Your task to perform on an android device: allow notifications from all sites in the chrome app Image 0: 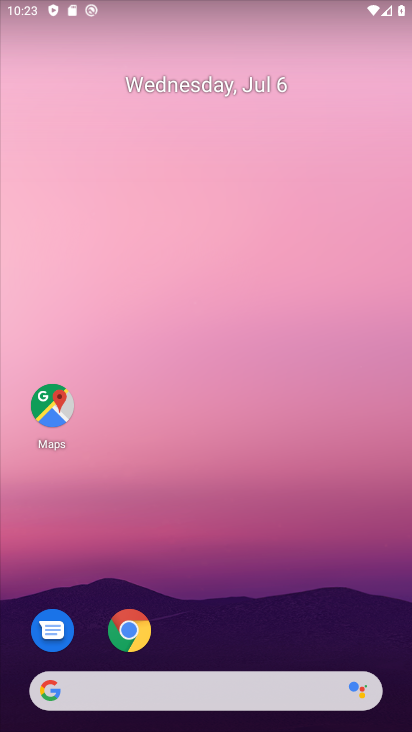
Step 0: click (129, 637)
Your task to perform on an android device: allow notifications from all sites in the chrome app Image 1: 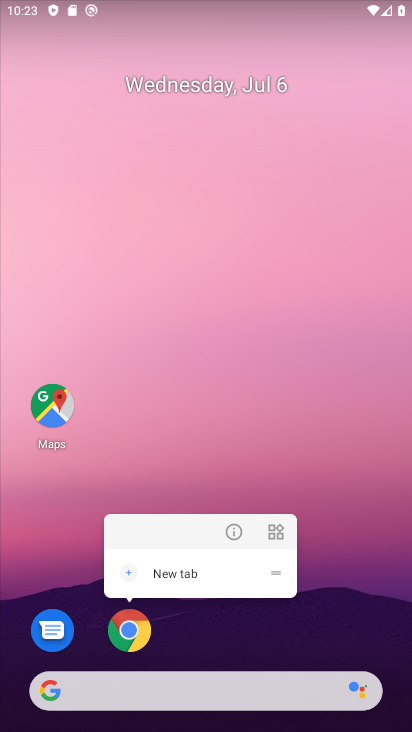
Step 1: click (124, 629)
Your task to perform on an android device: allow notifications from all sites in the chrome app Image 2: 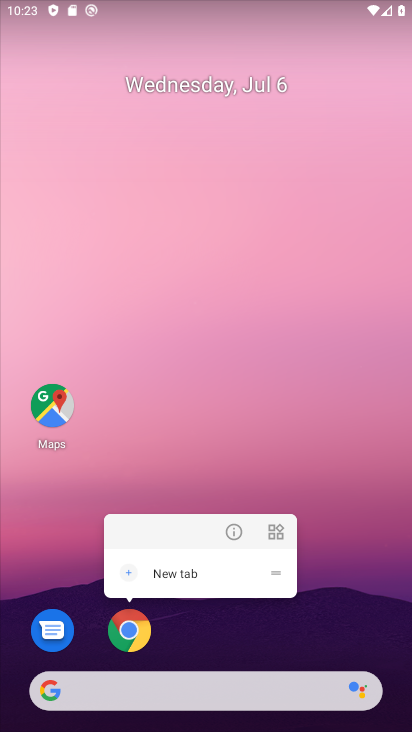
Step 2: click (129, 629)
Your task to perform on an android device: allow notifications from all sites in the chrome app Image 3: 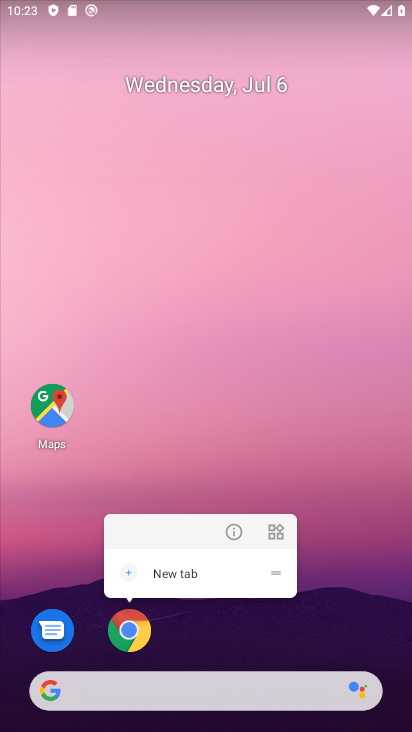
Step 3: click (133, 639)
Your task to perform on an android device: allow notifications from all sites in the chrome app Image 4: 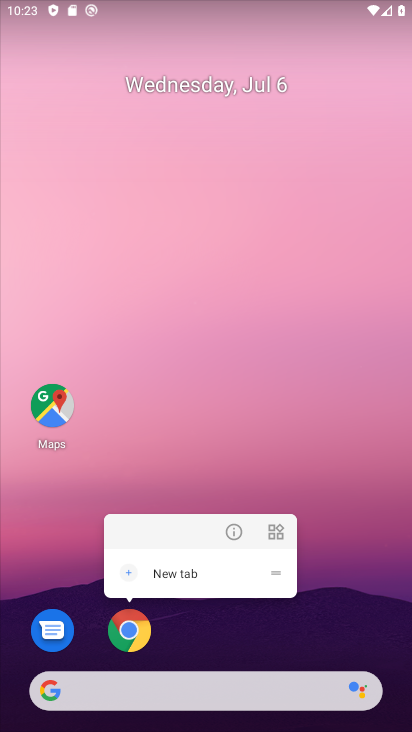
Step 4: click (126, 629)
Your task to perform on an android device: allow notifications from all sites in the chrome app Image 5: 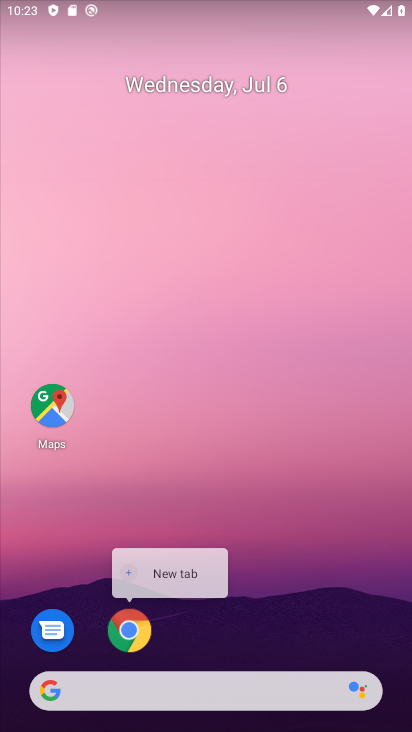
Step 5: click (126, 629)
Your task to perform on an android device: allow notifications from all sites in the chrome app Image 6: 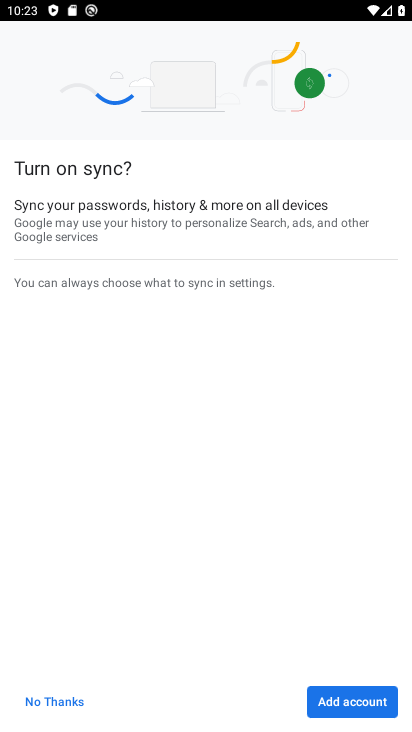
Step 6: click (66, 702)
Your task to perform on an android device: allow notifications from all sites in the chrome app Image 7: 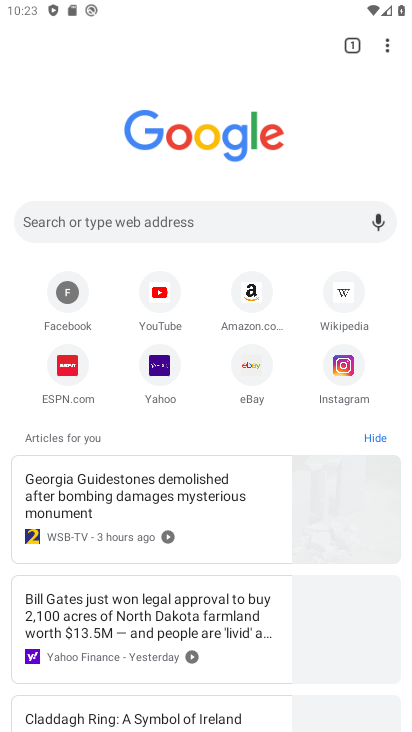
Step 7: click (392, 48)
Your task to perform on an android device: allow notifications from all sites in the chrome app Image 8: 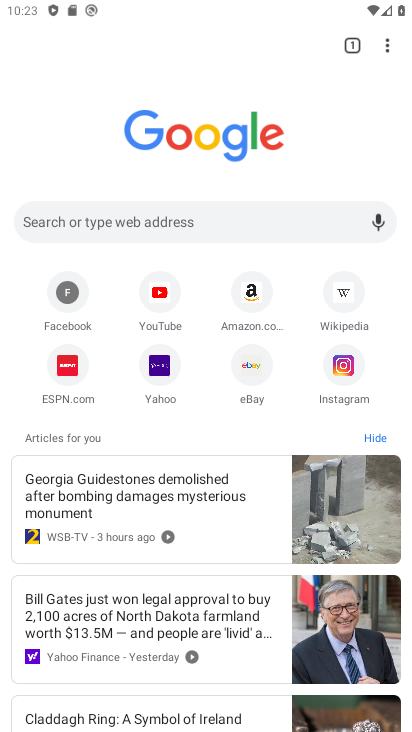
Step 8: click (386, 40)
Your task to perform on an android device: allow notifications from all sites in the chrome app Image 9: 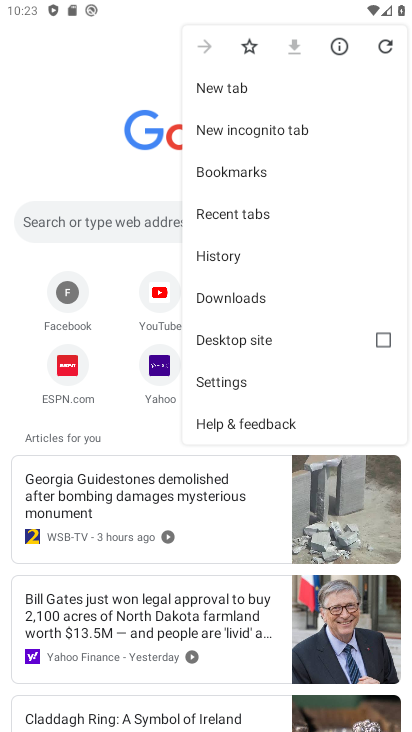
Step 9: click (197, 380)
Your task to perform on an android device: allow notifications from all sites in the chrome app Image 10: 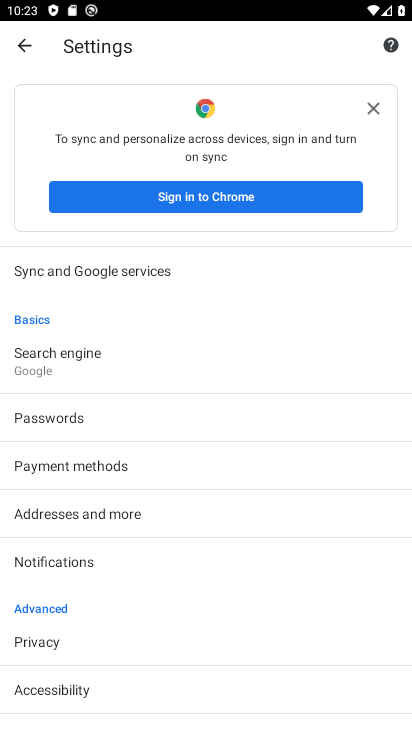
Step 10: drag from (63, 675) to (87, 296)
Your task to perform on an android device: allow notifications from all sites in the chrome app Image 11: 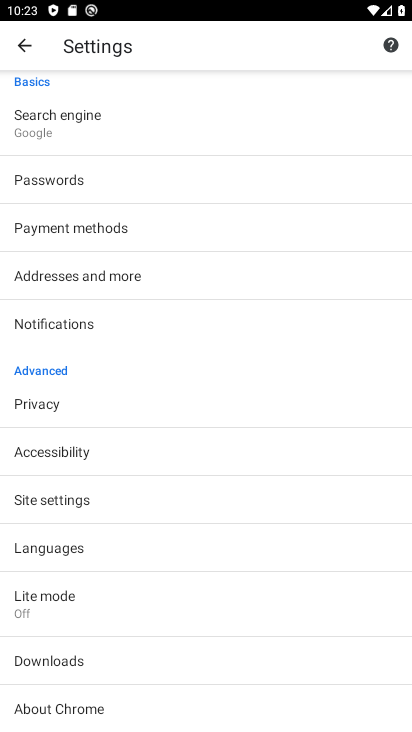
Step 11: click (40, 498)
Your task to perform on an android device: allow notifications from all sites in the chrome app Image 12: 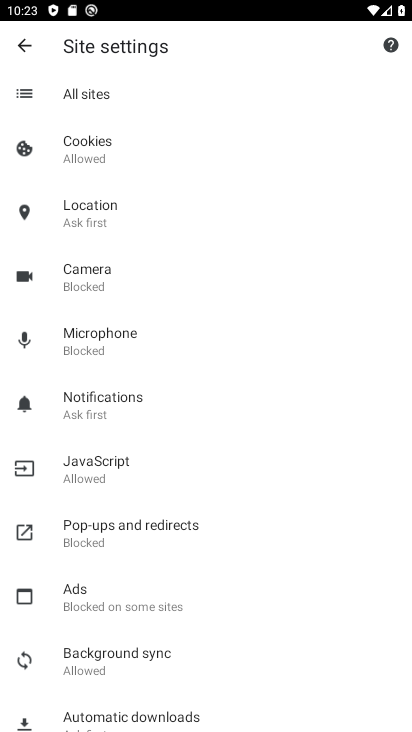
Step 12: click (108, 403)
Your task to perform on an android device: allow notifications from all sites in the chrome app Image 13: 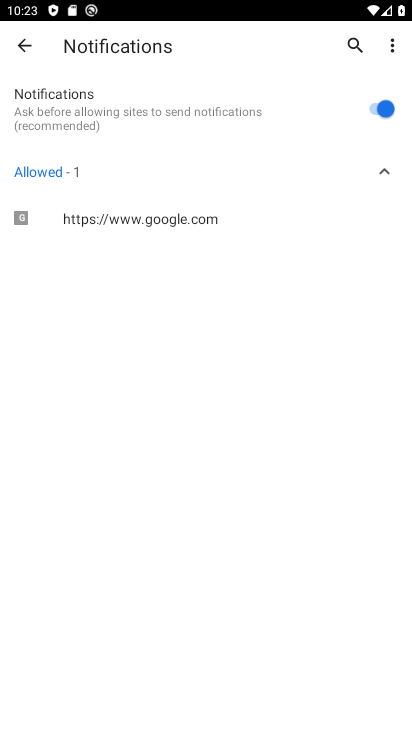
Step 13: task complete